Your task to perform on an android device: turn off javascript in the chrome app Image 0: 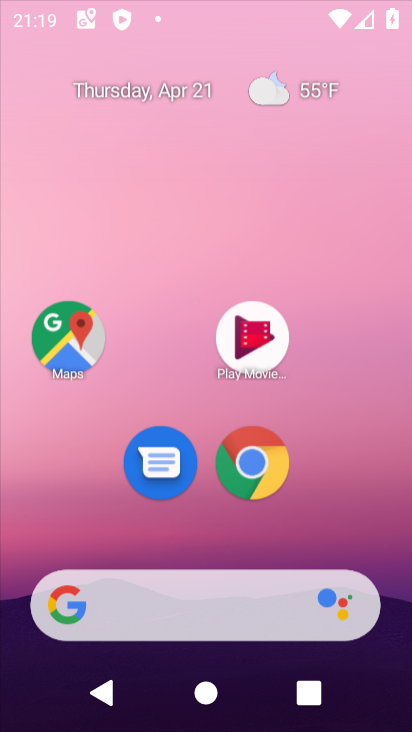
Step 0: click (378, 59)
Your task to perform on an android device: turn off javascript in the chrome app Image 1: 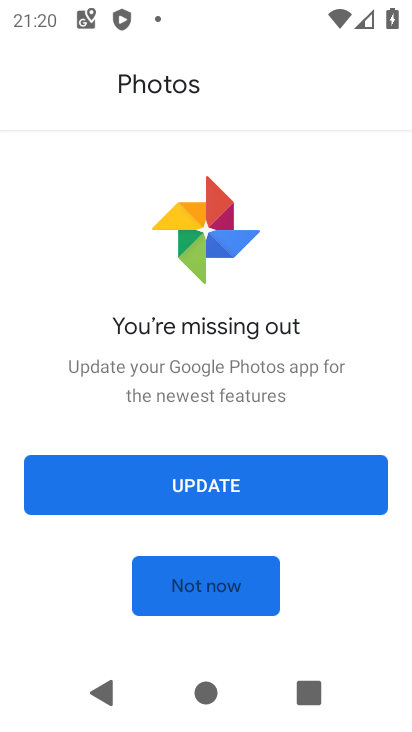
Step 1: press home button
Your task to perform on an android device: turn off javascript in the chrome app Image 2: 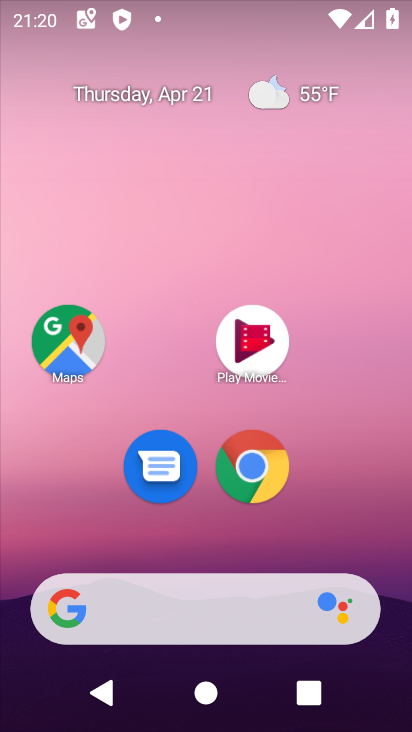
Step 2: click (259, 488)
Your task to perform on an android device: turn off javascript in the chrome app Image 3: 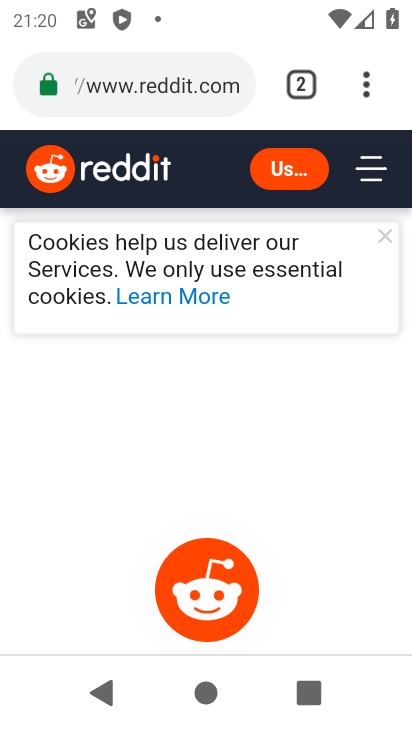
Step 3: drag from (370, 88) to (188, 526)
Your task to perform on an android device: turn off javascript in the chrome app Image 4: 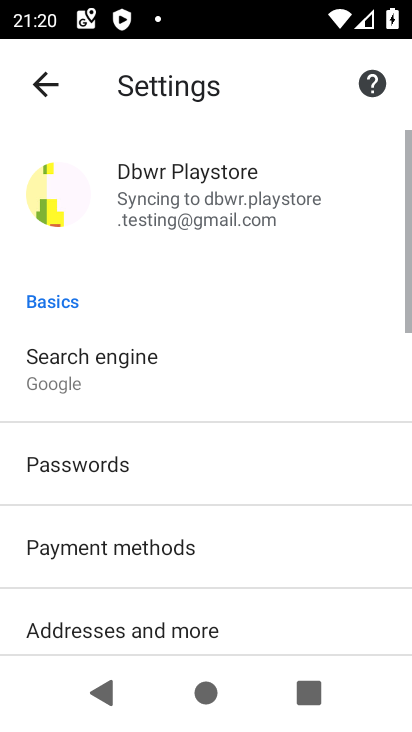
Step 4: drag from (209, 600) to (235, 202)
Your task to perform on an android device: turn off javascript in the chrome app Image 5: 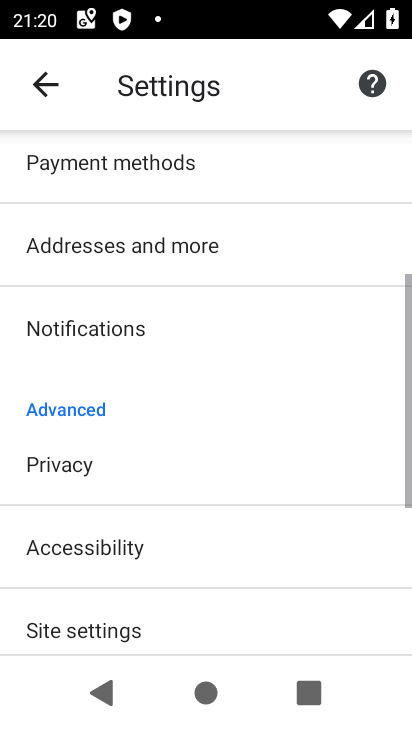
Step 5: drag from (201, 599) to (218, 255)
Your task to perform on an android device: turn off javascript in the chrome app Image 6: 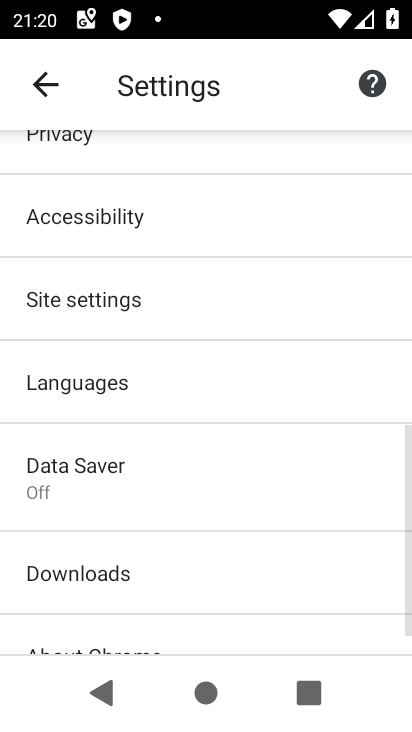
Step 6: drag from (181, 632) to (227, 286)
Your task to perform on an android device: turn off javascript in the chrome app Image 7: 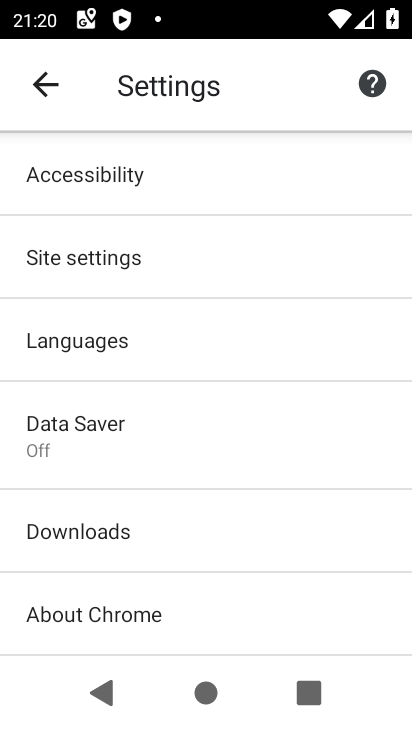
Step 7: click (109, 270)
Your task to perform on an android device: turn off javascript in the chrome app Image 8: 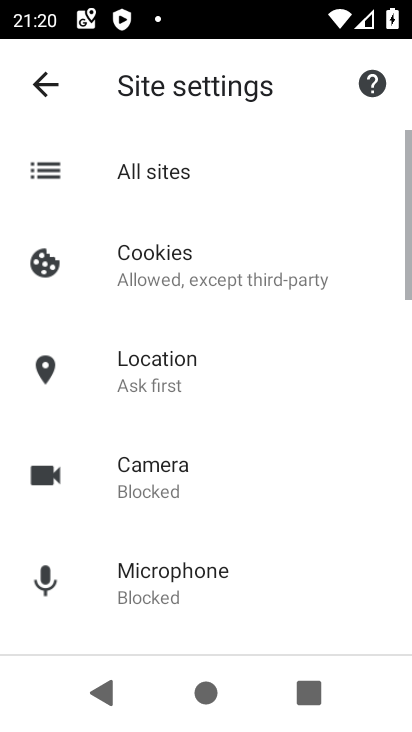
Step 8: drag from (242, 552) to (248, 158)
Your task to perform on an android device: turn off javascript in the chrome app Image 9: 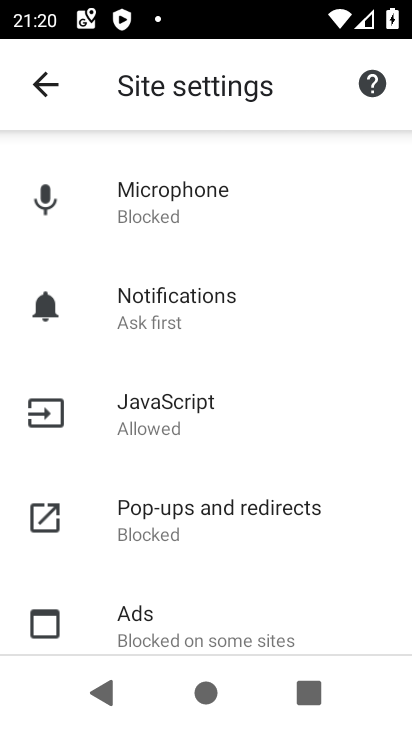
Step 9: click (154, 413)
Your task to perform on an android device: turn off javascript in the chrome app Image 10: 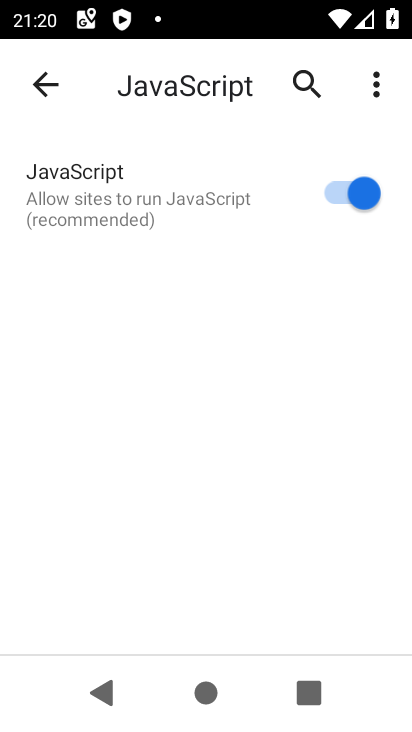
Step 10: click (375, 192)
Your task to perform on an android device: turn off javascript in the chrome app Image 11: 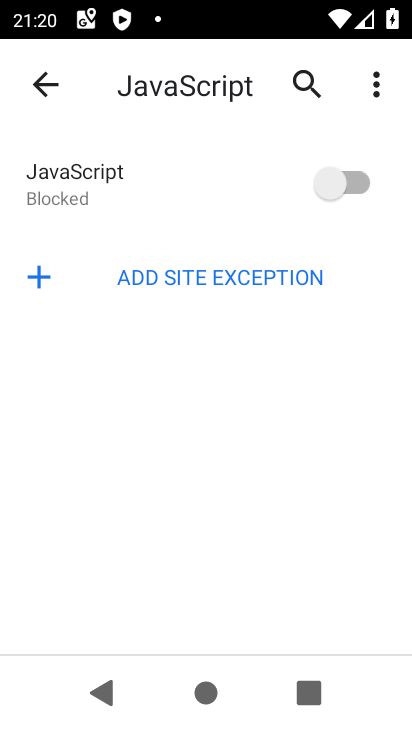
Step 11: task complete